Your task to perform on an android device: Check the news Image 0: 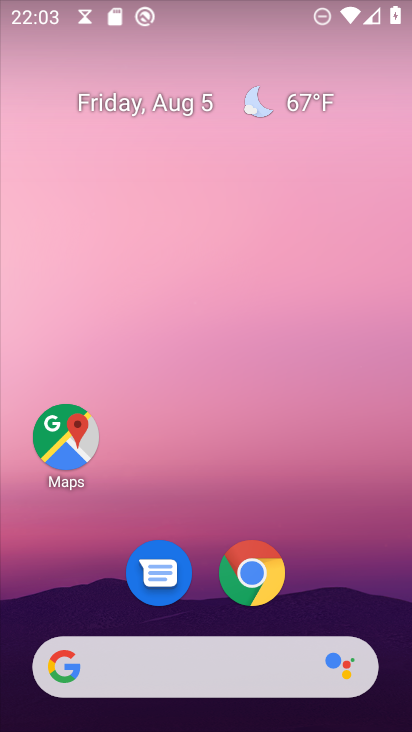
Step 0: drag from (203, 678) to (203, 153)
Your task to perform on an android device: Check the news Image 1: 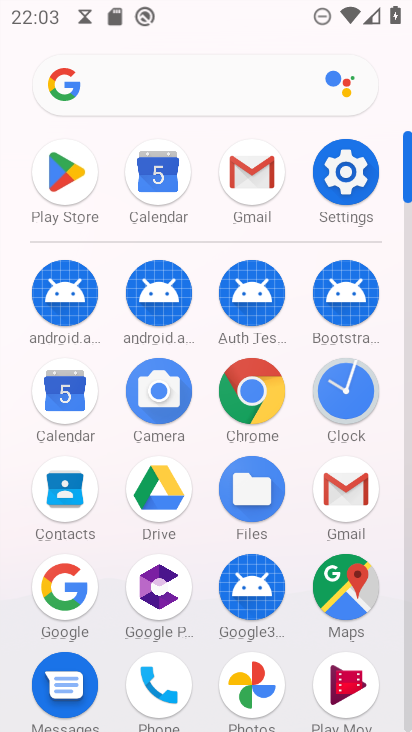
Step 1: click (61, 587)
Your task to perform on an android device: Check the news Image 2: 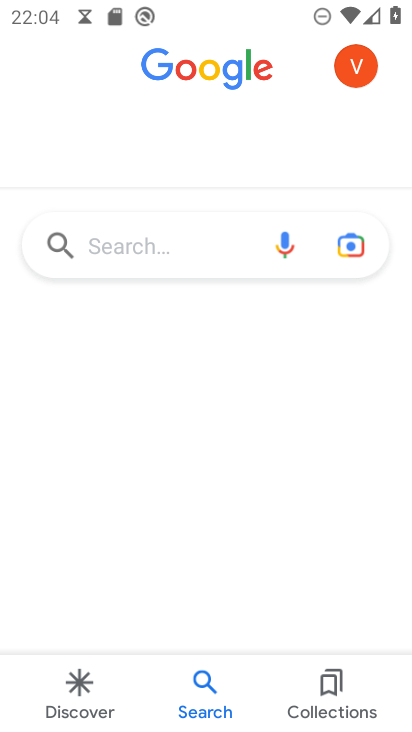
Step 2: click (164, 258)
Your task to perform on an android device: Check the news Image 3: 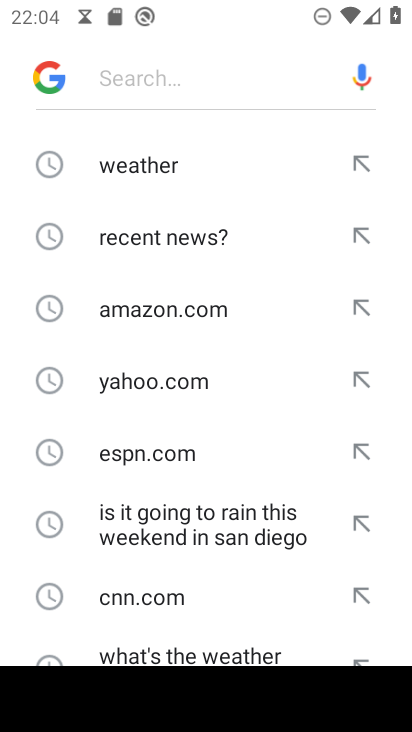
Step 3: type "news"
Your task to perform on an android device: Check the news Image 4: 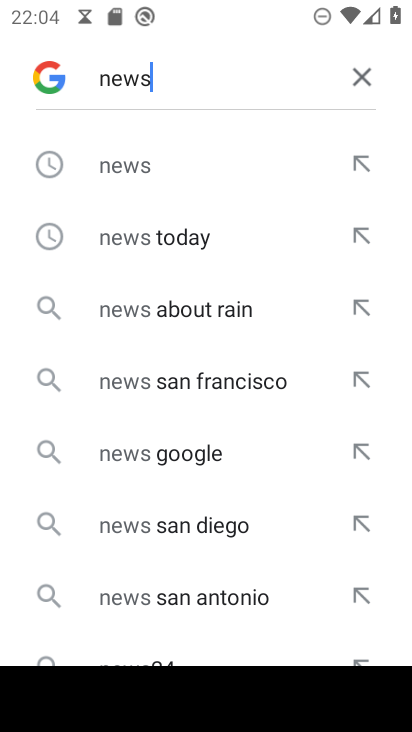
Step 4: click (143, 167)
Your task to perform on an android device: Check the news Image 5: 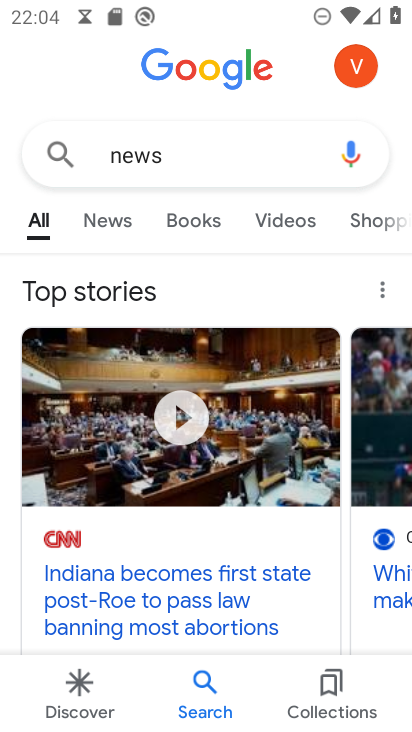
Step 5: click (184, 568)
Your task to perform on an android device: Check the news Image 6: 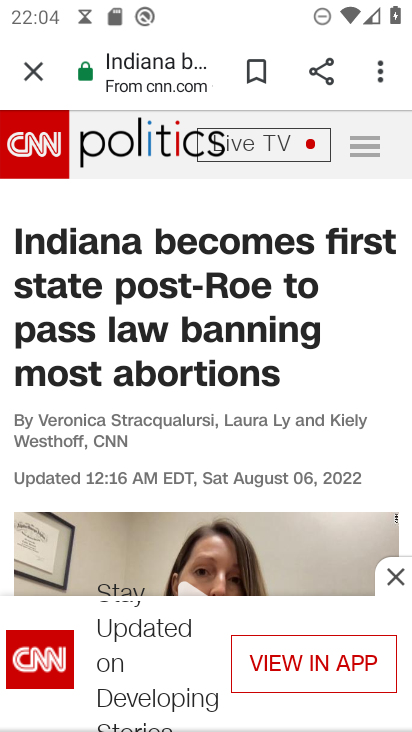
Step 6: task complete